Your task to perform on an android device: open sync settings in chrome Image 0: 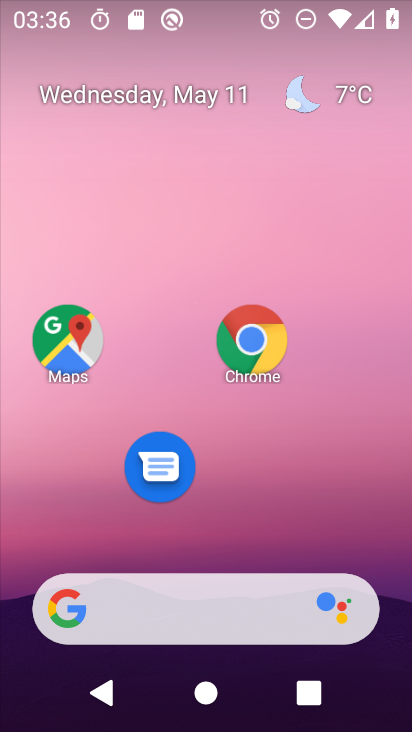
Step 0: drag from (143, 623) to (276, 173)
Your task to perform on an android device: open sync settings in chrome Image 1: 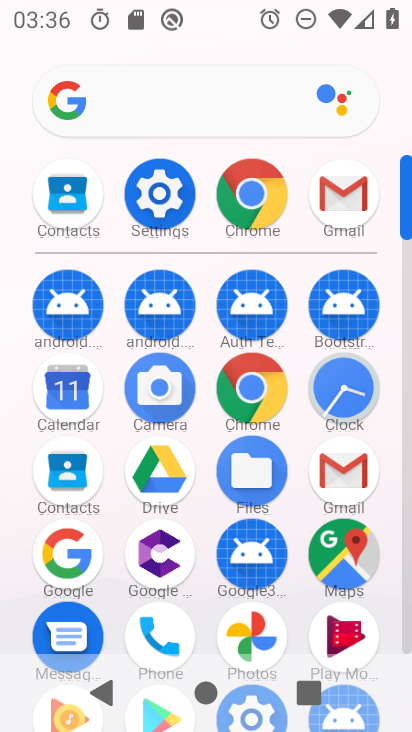
Step 1: click (257, 201)
Your task to perform on an android device: open sync settings in chrome Image 2: 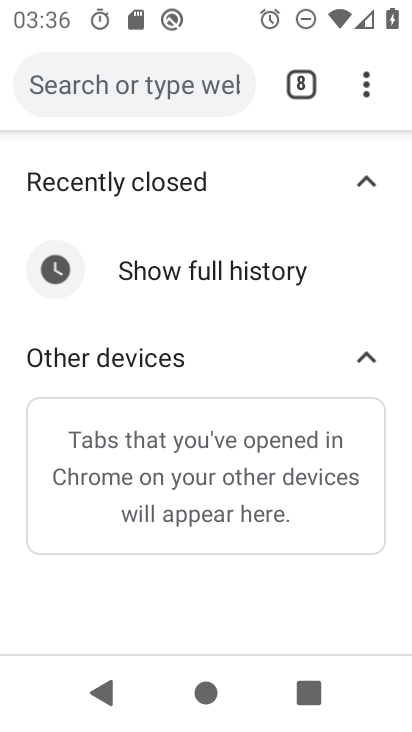
Step 2: drag from (363, 88) to (164, 531)
Your task to perform on an android device: open sync settings in chrome Image 3: 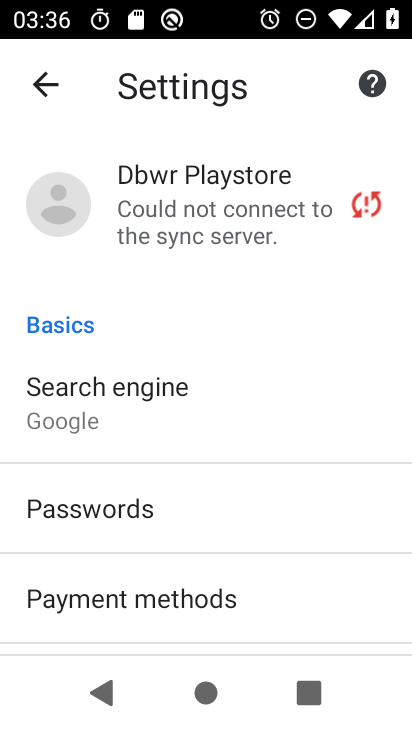
Step 3: click (183, 230)
Your task to perform on an android device: open sync settings in chrome Image 4: 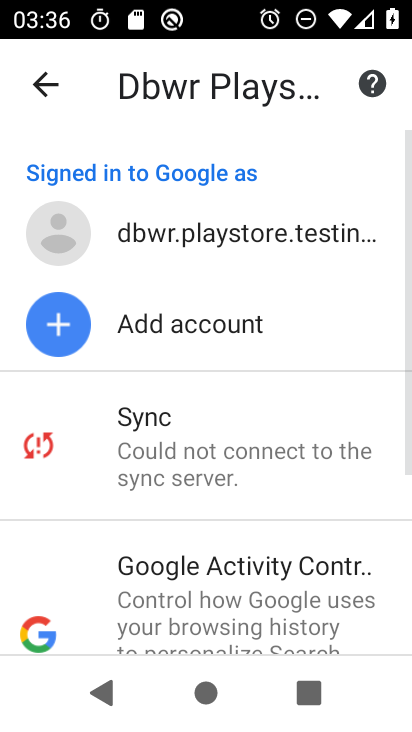
Step 4: click (170, 450)
Your task to perform on an android device: open sync settings in chrome Image 5: 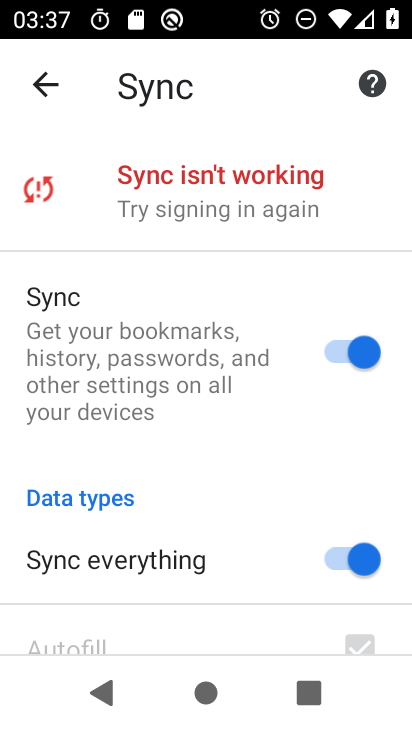
Step 5: task complete